Your task to perform on an android device: Show me popular videos on Youtube Image 0: 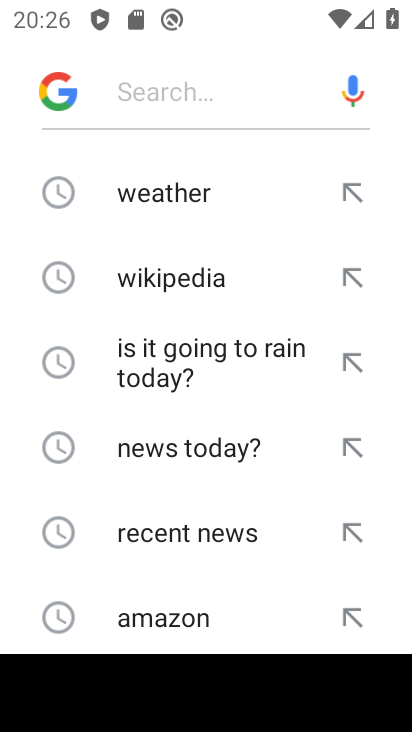
Step 0: press home button
Your task to perform on an android device: Show me popular videos on Youtube Image 1: 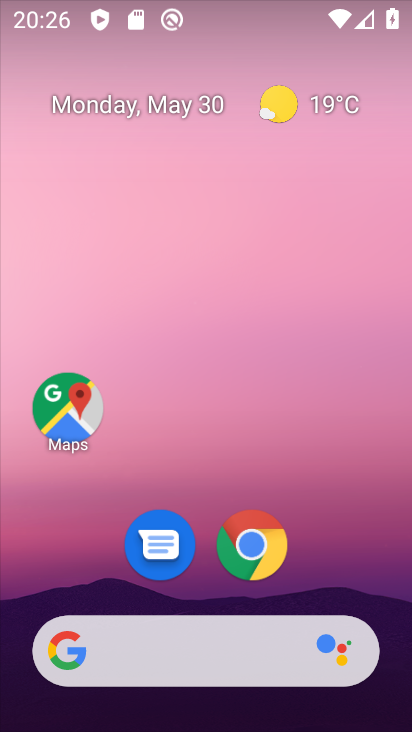
Step 1: drag from (324, 547) to (290, 174)
Your task to perform on an android device: Show me popular videos on Youtube Image 2: 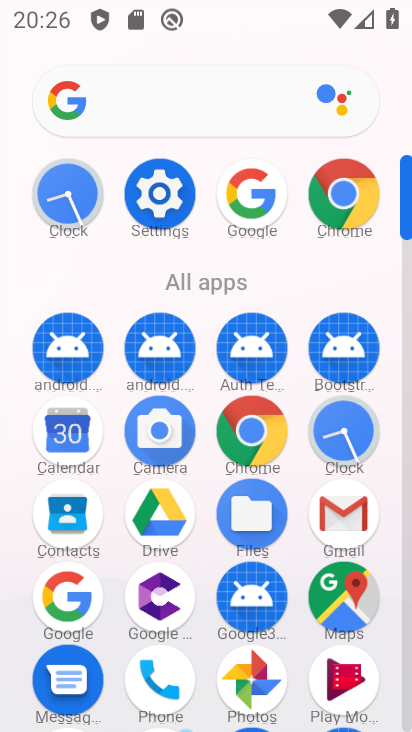
Step 2: drag from (292, 642) to (239, 64)
Your task to perform on an android device: Show me popular videos on Youtube Image 3: 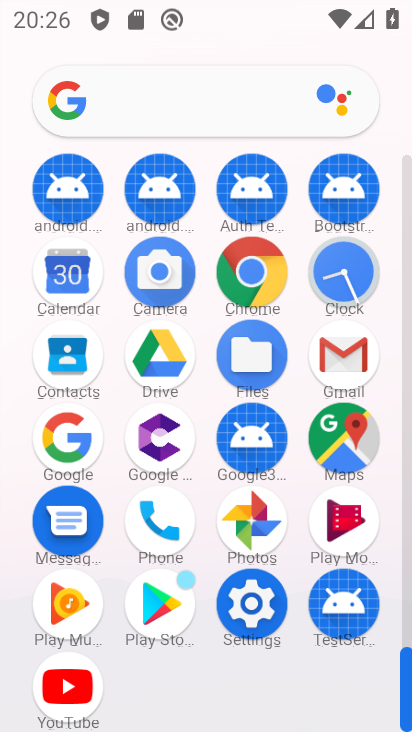
Step 3: click (69, 705)
Your task to perform on an android device: Show me popular videos on Youtube Image 4: 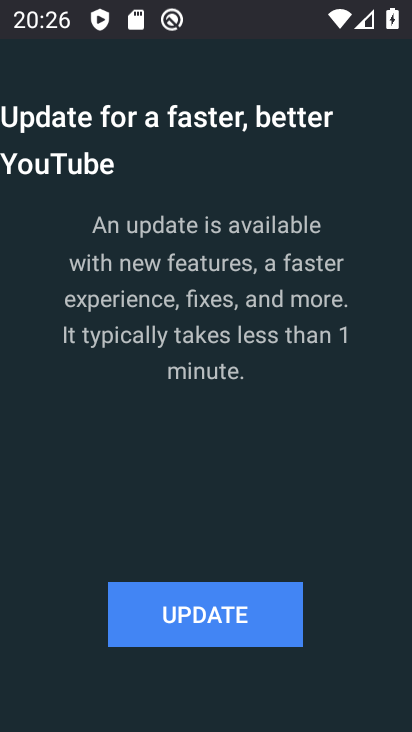
Step 4: click (245, 603)
Your task to perform on an android device: Show me popular videos on Youtube Image 5: 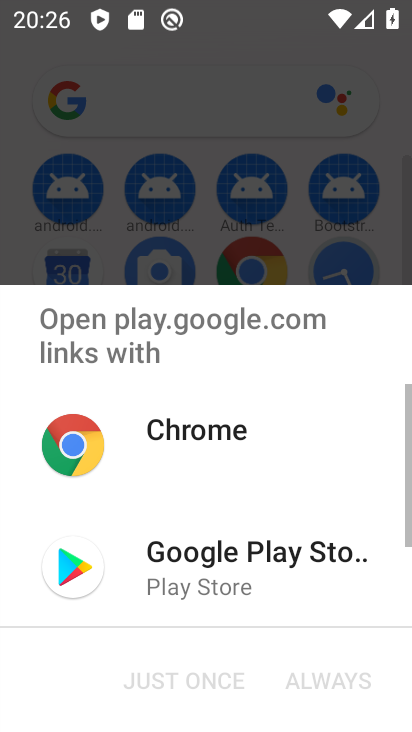
Step 5: click (247, 565)
Your task to perform on an android device: Show me popular videos on Youtube Image 6: 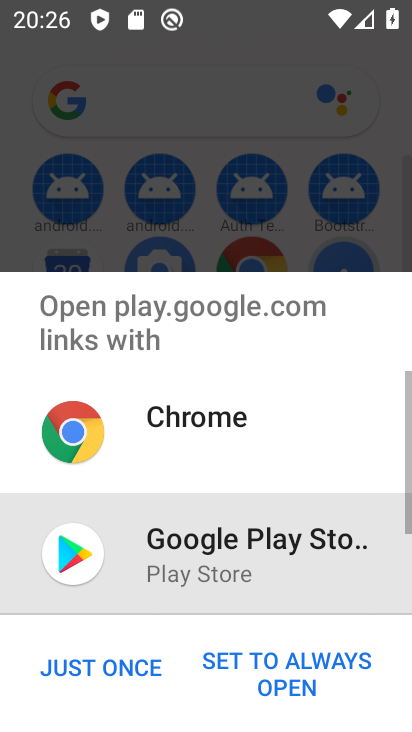
Step 6: click (127, 665)
Your task to perform on an android device: Show me popular videos on Youtube Image 7: 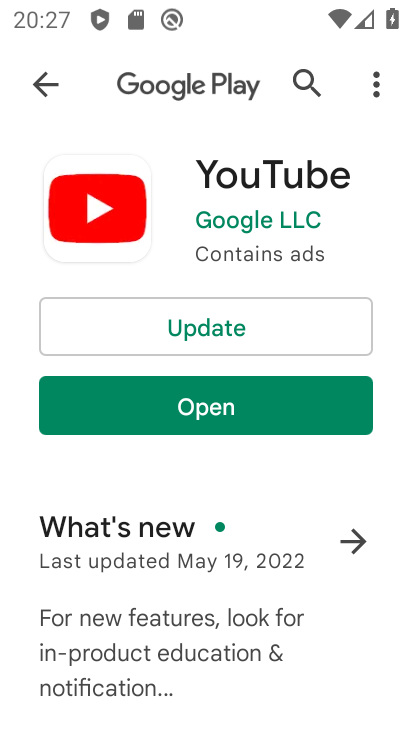
Step 7: click (269, 328)
Your task to perform on an android device: Show me popular videos on Youtube Image 8: 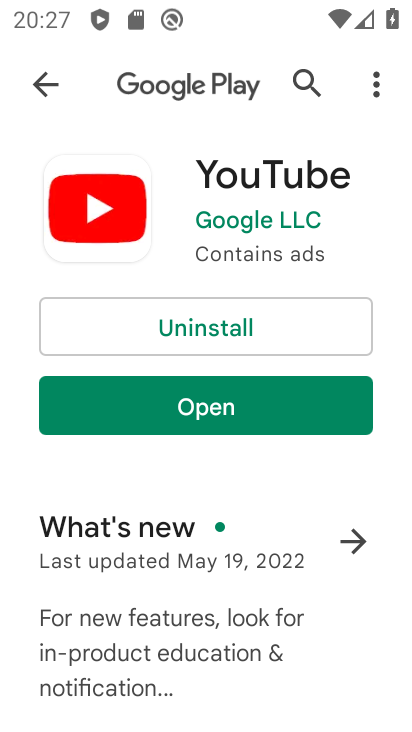
Step 8: click (208, 407)
Your task to perform on an android device: Show me popular videos on Youtube Image 9: 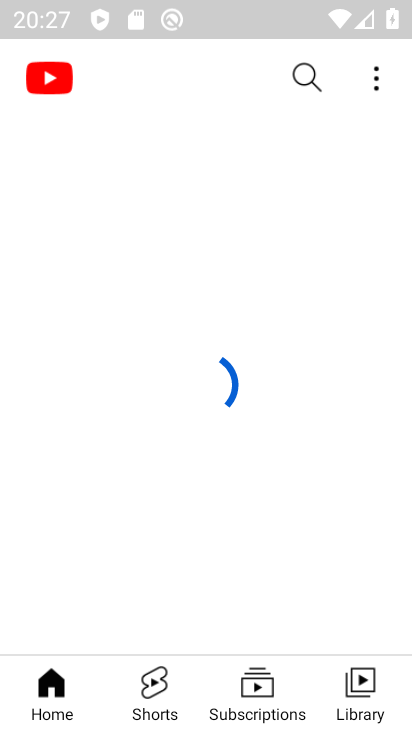
Step 9: click (306, 76)
Your task to perform on an android device: Show me popular videos on Youtube Image 10: 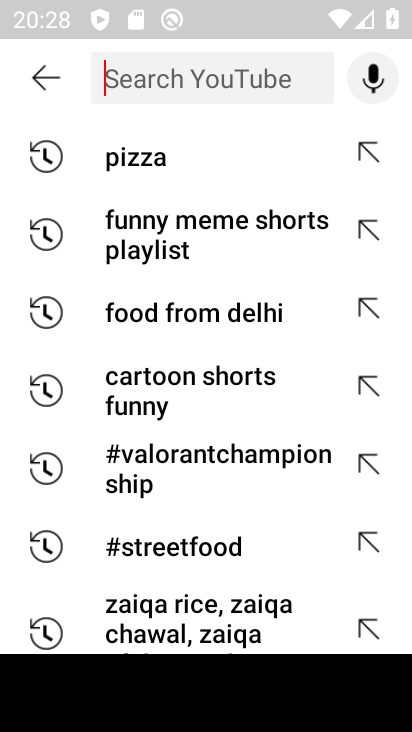
Step 10: type "popular videos"
Your task to perform on an android device: Show me popular videos on Youtube Image 11: 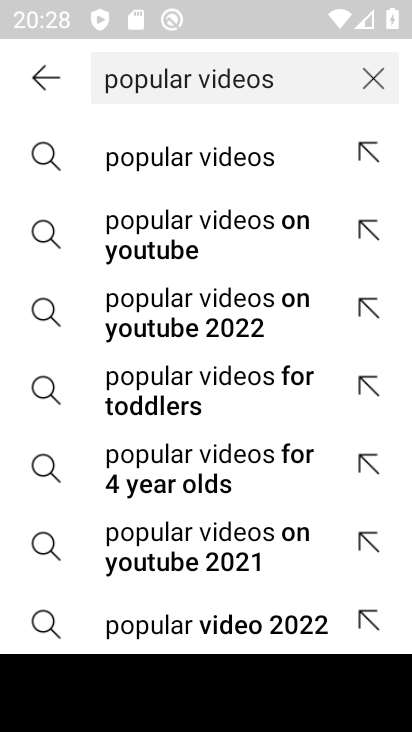
Step 11: click (215, 236)
Your task to perform on an android device: Show me popular videos on Youtube Image 12: 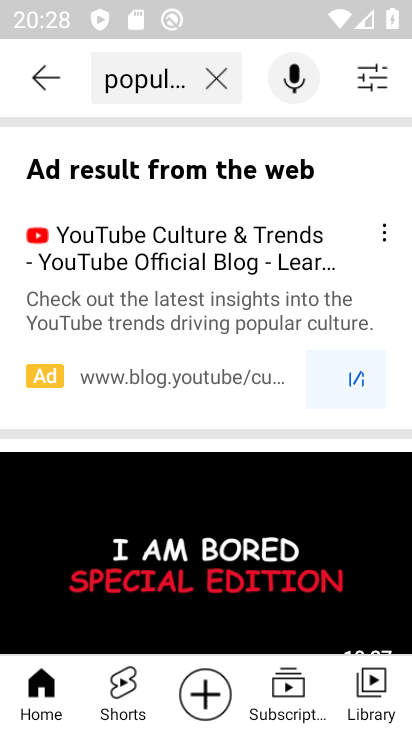
Step 12: task complete